Your task to perform on an android device: see tabs open on other devices in the chrome app Image 0: 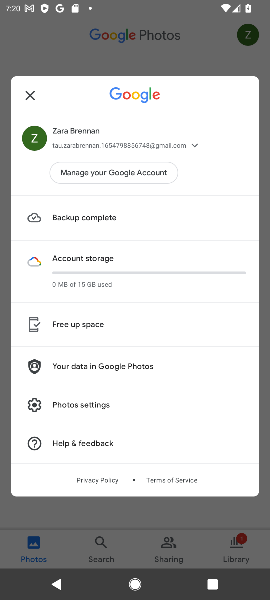
Step 0: press home button
Your task to perform on an android device: see tabs open on other devices in the chrome app Image 1: 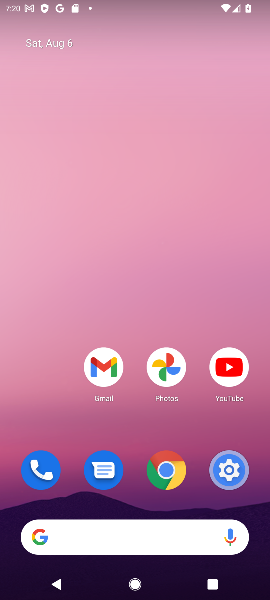
Step 1: drag from (183, 498) to (240, 50)
Your task to perform on an android device: see tabs open on other devices in the chrome app Image 2: 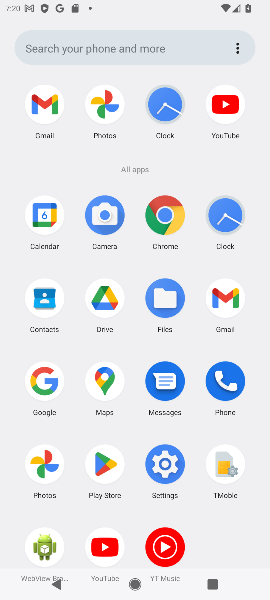
Step 2: click (168, 225)
Your task to perform on an android device: see tabs open on other devices in the chrome app Image 3: 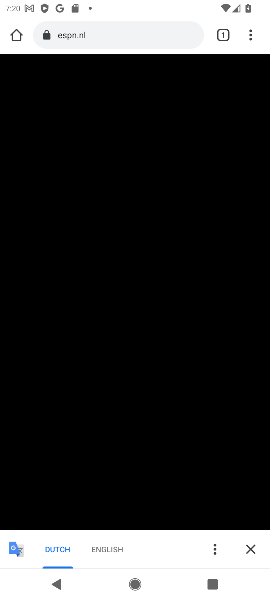
Step 3: task complete